Your task to perform on an android device: Open privacy settings Image 0: 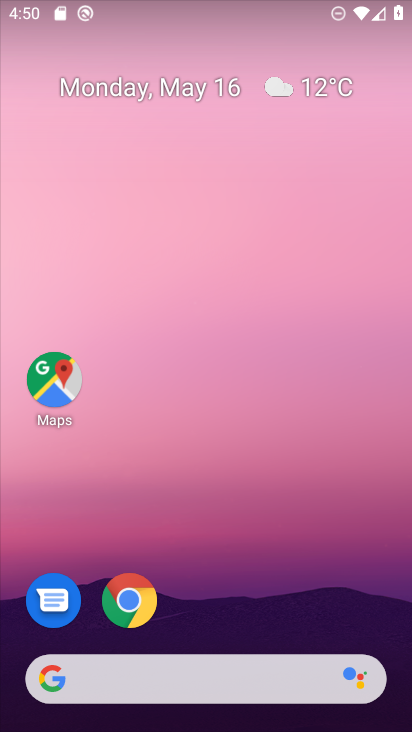
Step 0: drag from (366, 524) to (317, 146)
Your task to perform on an android device: Open privacy settings Image 1: 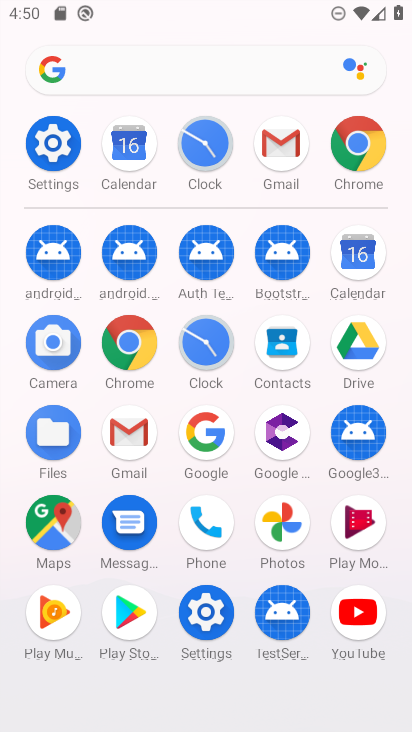
Step 1: click (57, 141)
Your task to perform on an android device: Open privacy settings Image 2: 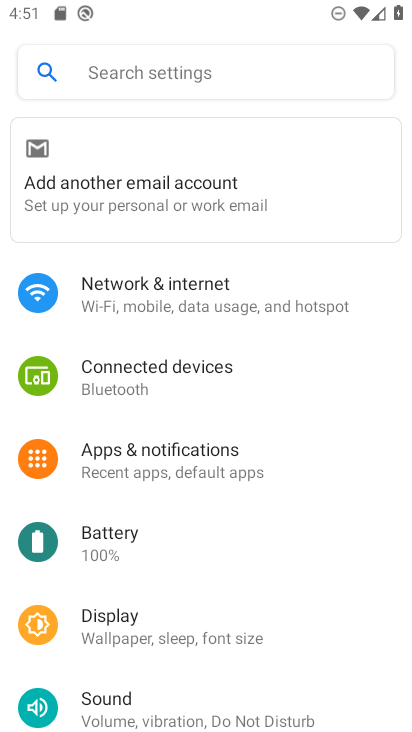
Step 2: drag from (278, 603) to (309, 105)
Your task to perform on an android device: Open privacy settings Image 3: 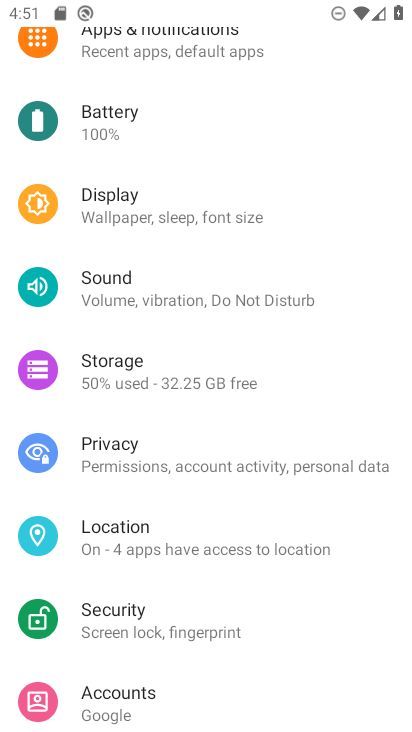
Step 3: click (179, 458)
Your task to perform on an android device: Open privacy settings Image 4: 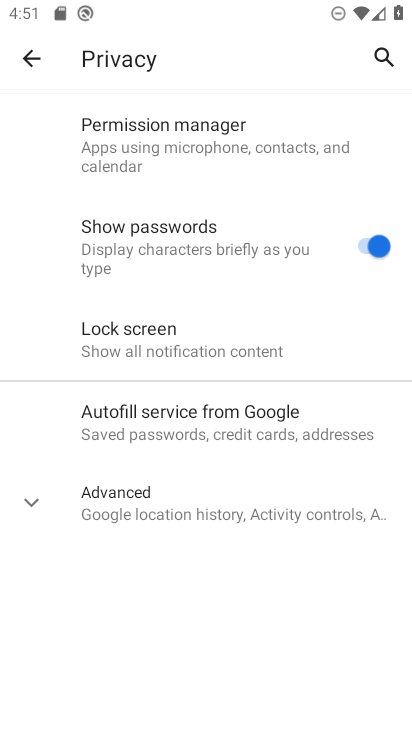
Step 4: task complete